Your task to perform on an android device: turn off wifi Image 0: 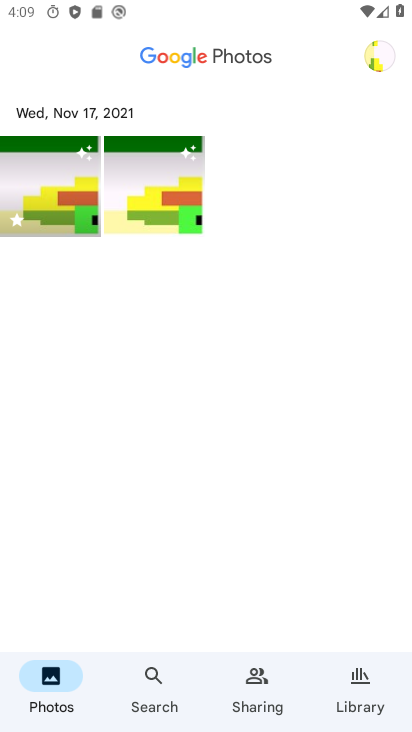
Step 0: press home button
Your task to perform on an android device: turn off wifi Image 1: 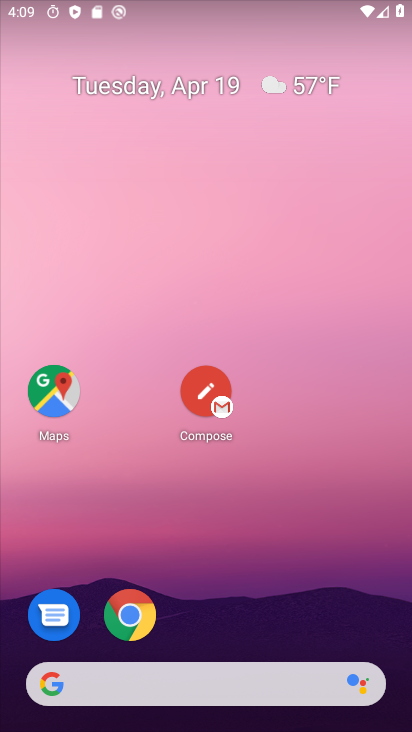
Step 1: drag from (359, 625) to (336, 51)
Your task to perform on an android device: turn off wifi Image 2: 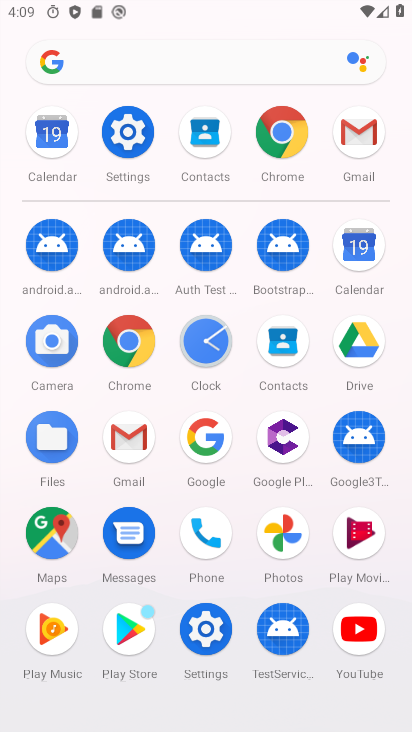
Step 2: click (203, 629)
Your task to perform on an android device: turn off wifi Image 3: 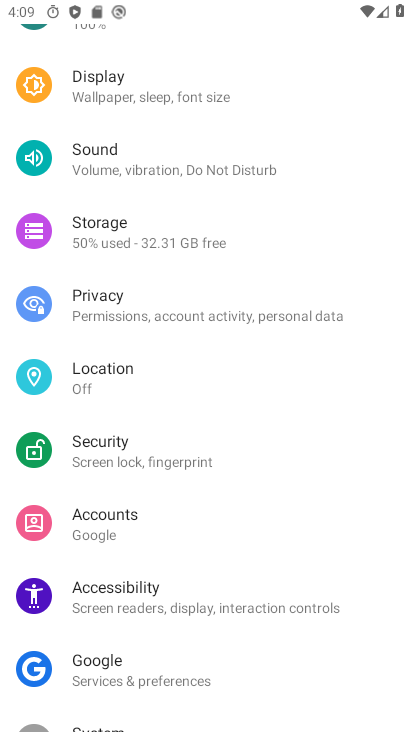
Step 3: drag from (195, 203) to (176, 727)
Your task to perform on an android device: turn off wifi Image 4: 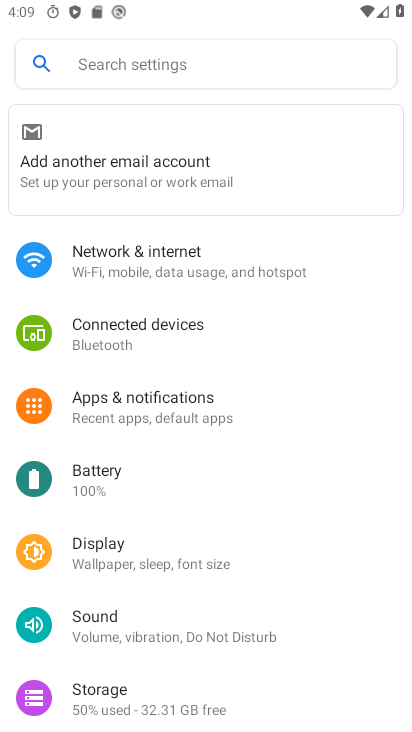
Step 4: click (174, 271)
Your task to perform on an android device: turn off wifi Image 5: 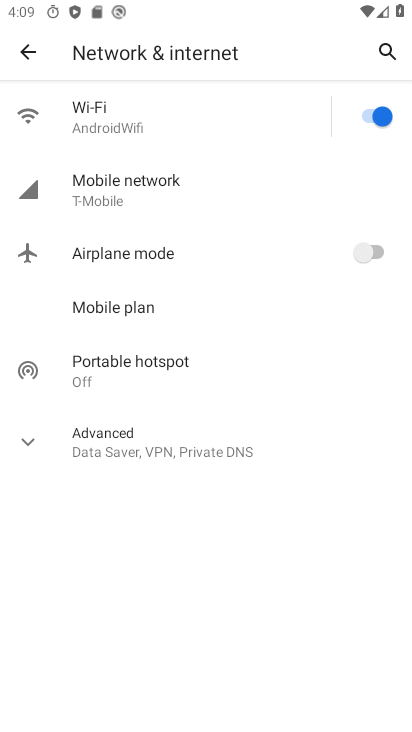
Step 5: click (363, 117)
Your task to perform on an android device: turn off wifi Image 6: 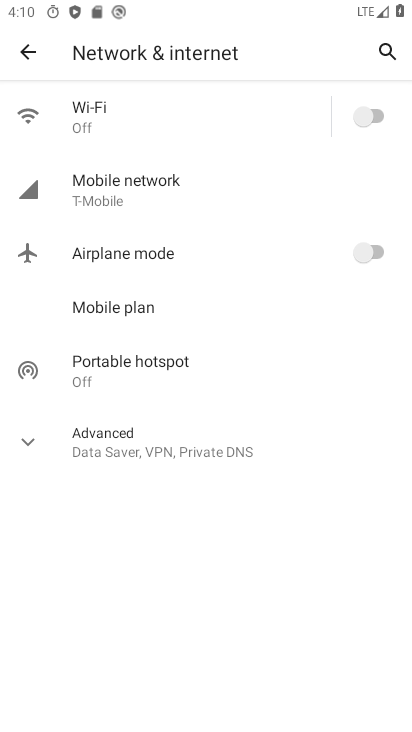
Step 6: task complete